Your task to perform on an android device: open app "Google Translate" Image 0: 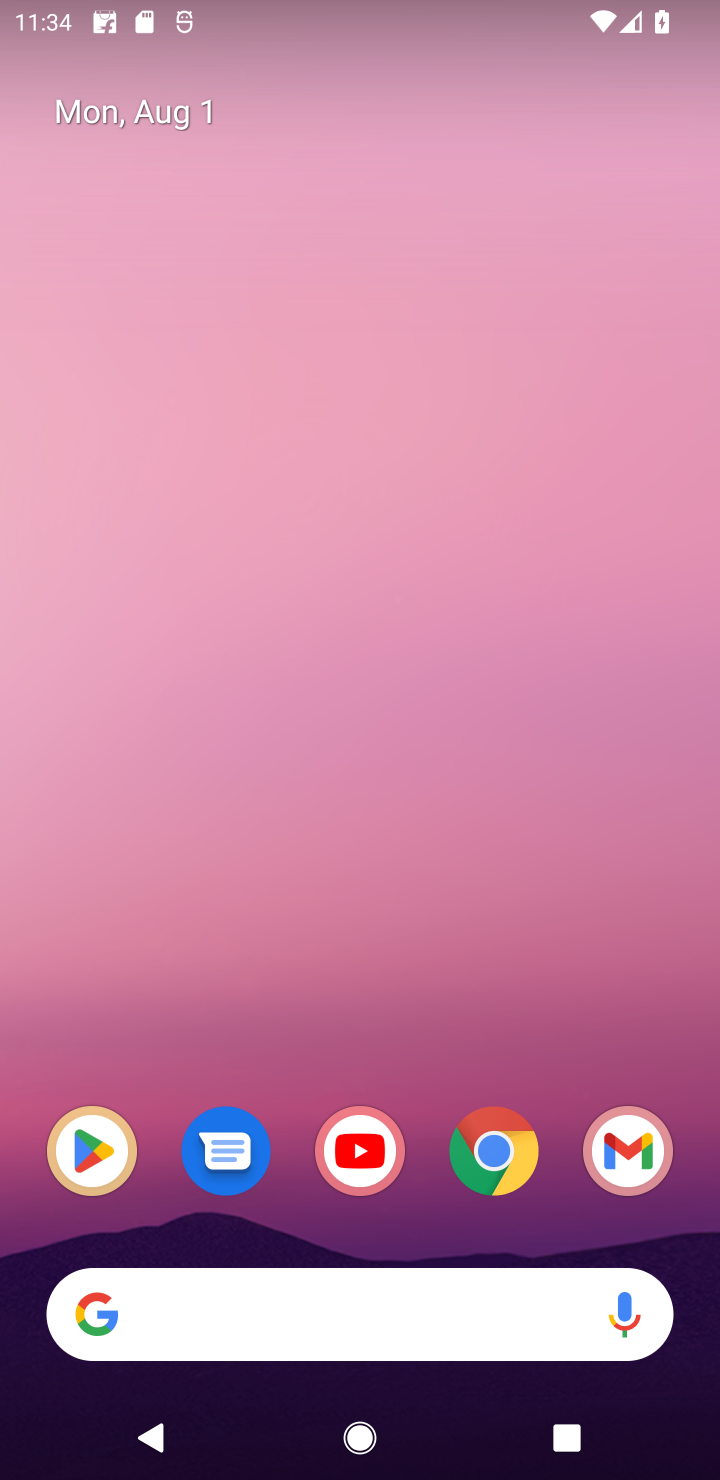
Step 0: click (115, 1132)
Your task to perform on an android device: open app "Google Translate" Image 1: 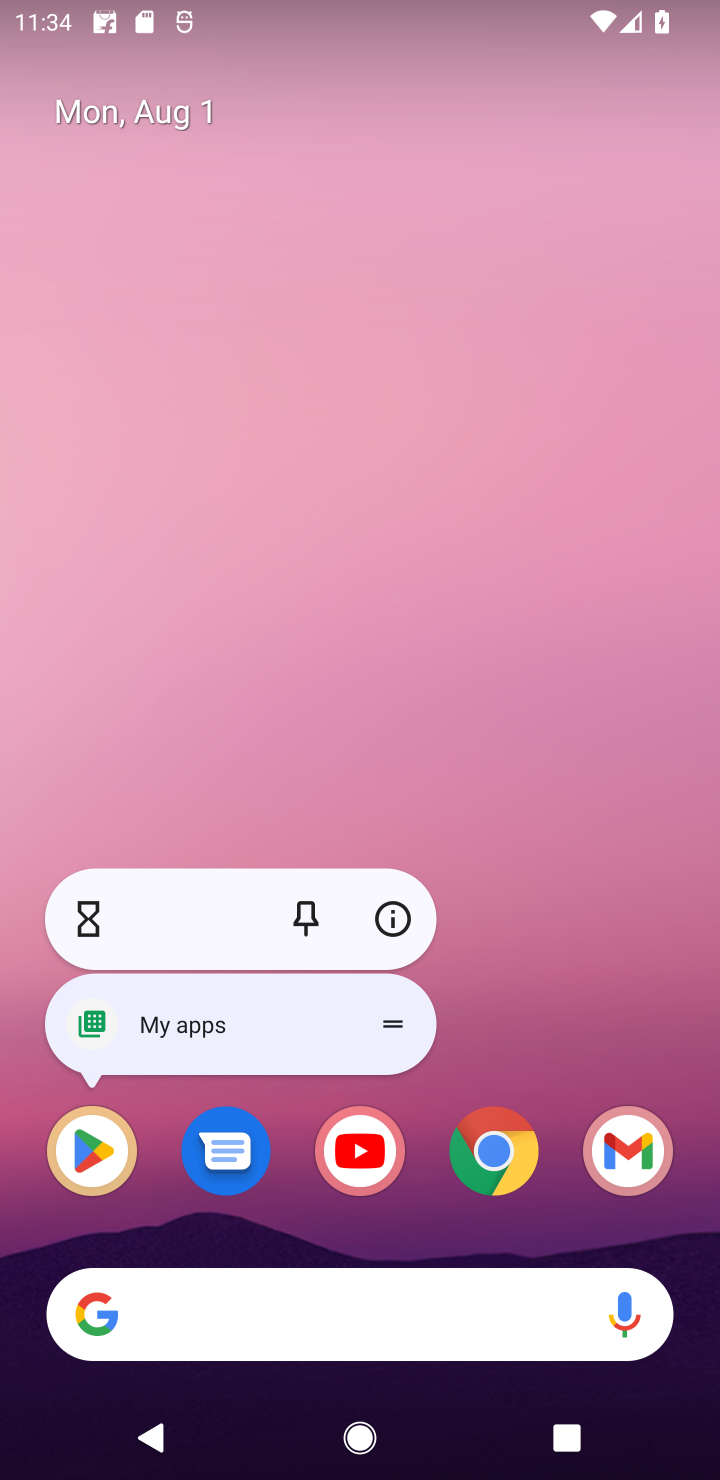
Step 1: click (90, 1143)
Your task to perform on an android device: open app "Google Translate" Image 2: 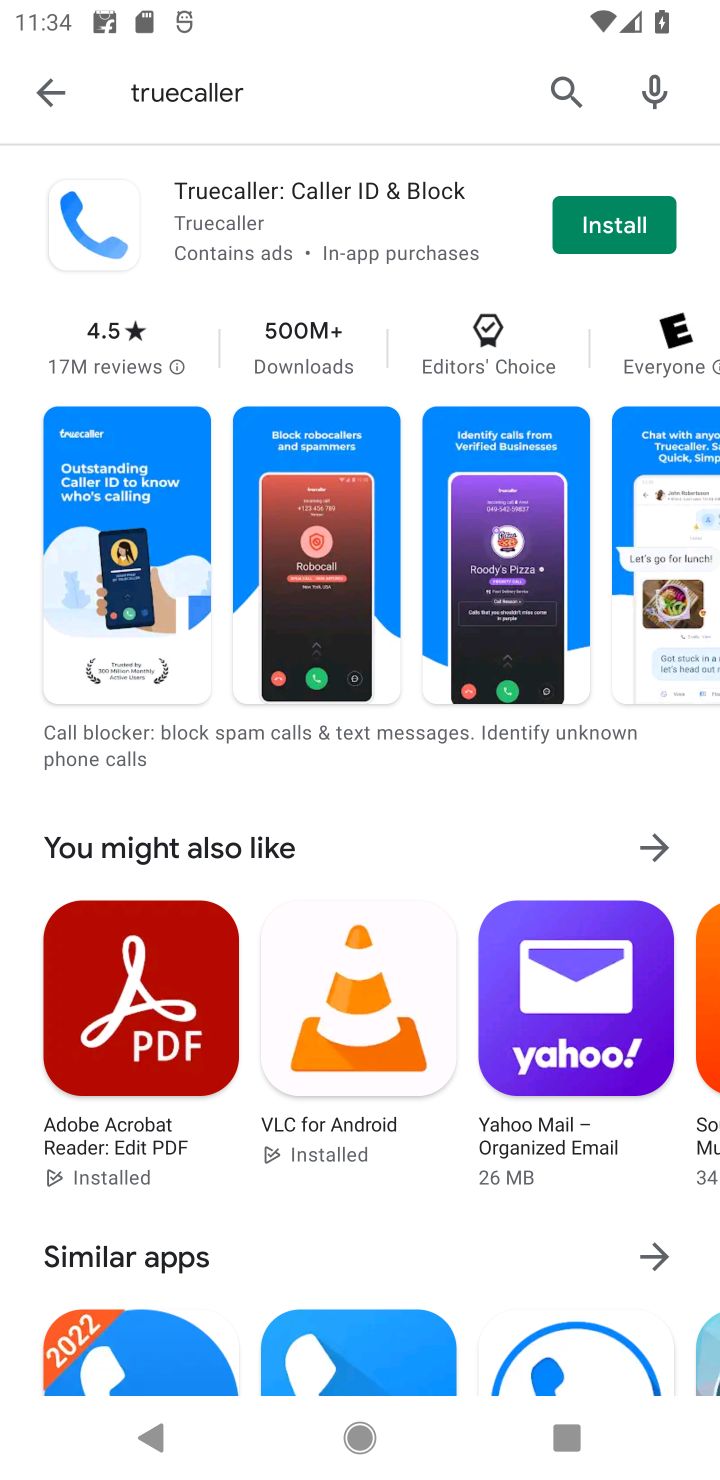
Step 2: click (553, 86)
Your task to perform on an android device: open app "Google Translate" Image 3: 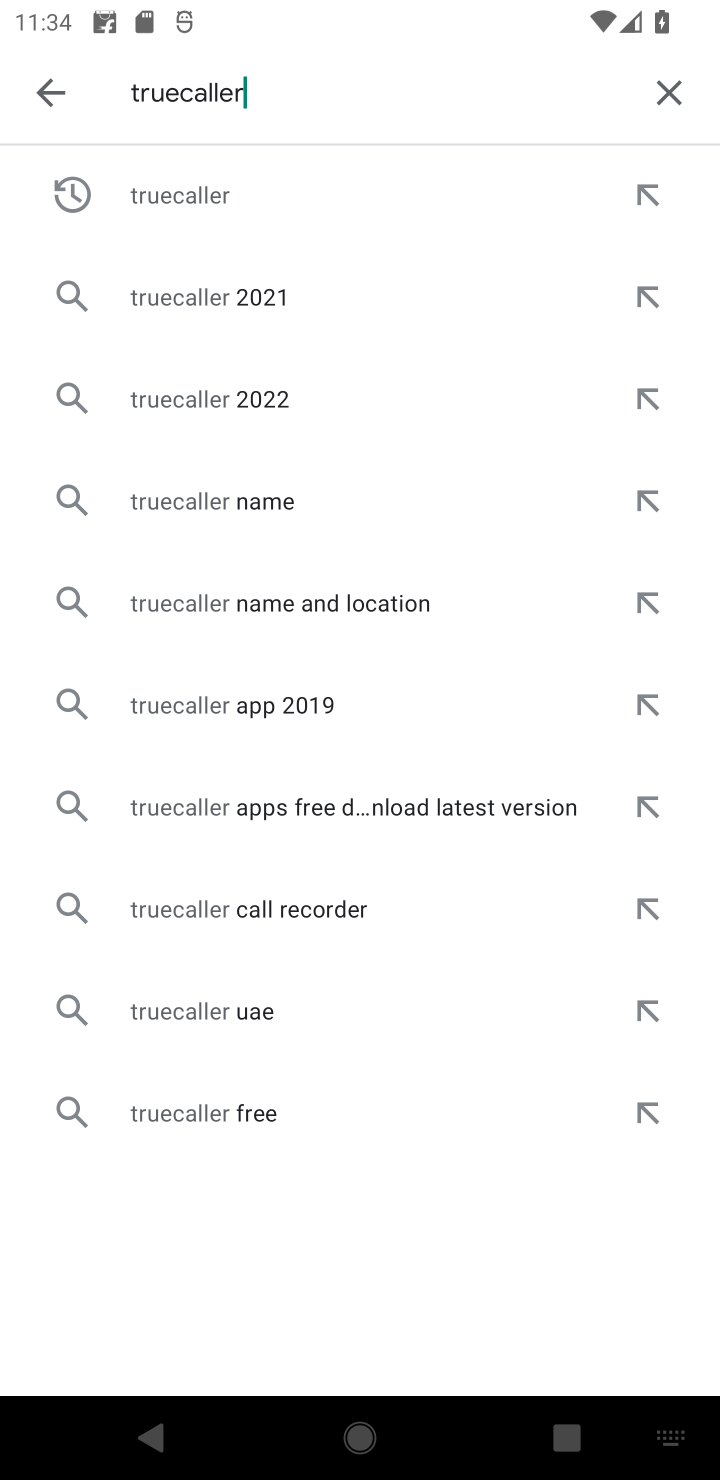
Step 3: click (684, 106)
Your task to perform on an android device: open app "Google Translate" Image 4: 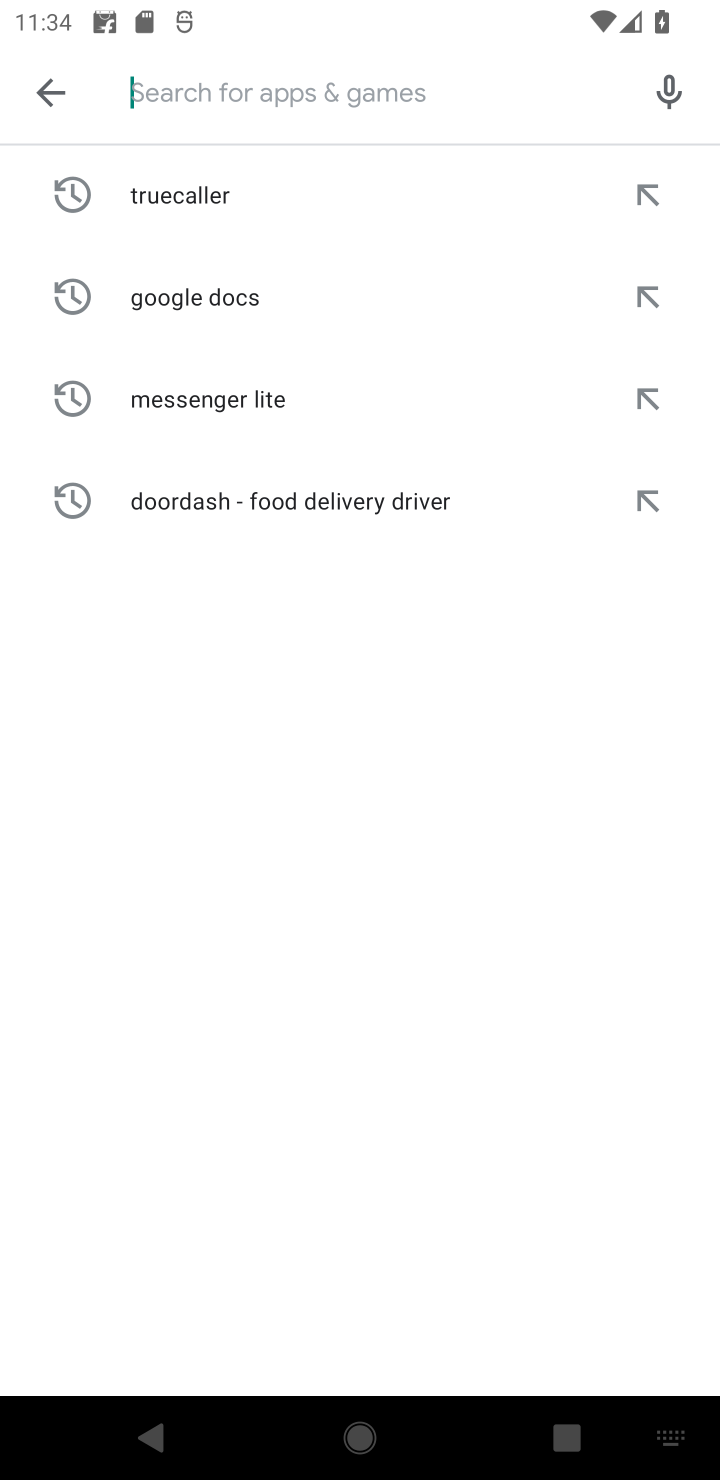
Step 4: type "Google Translate"
Your task to perform on an android device: open app "Google Translate" Image 5: 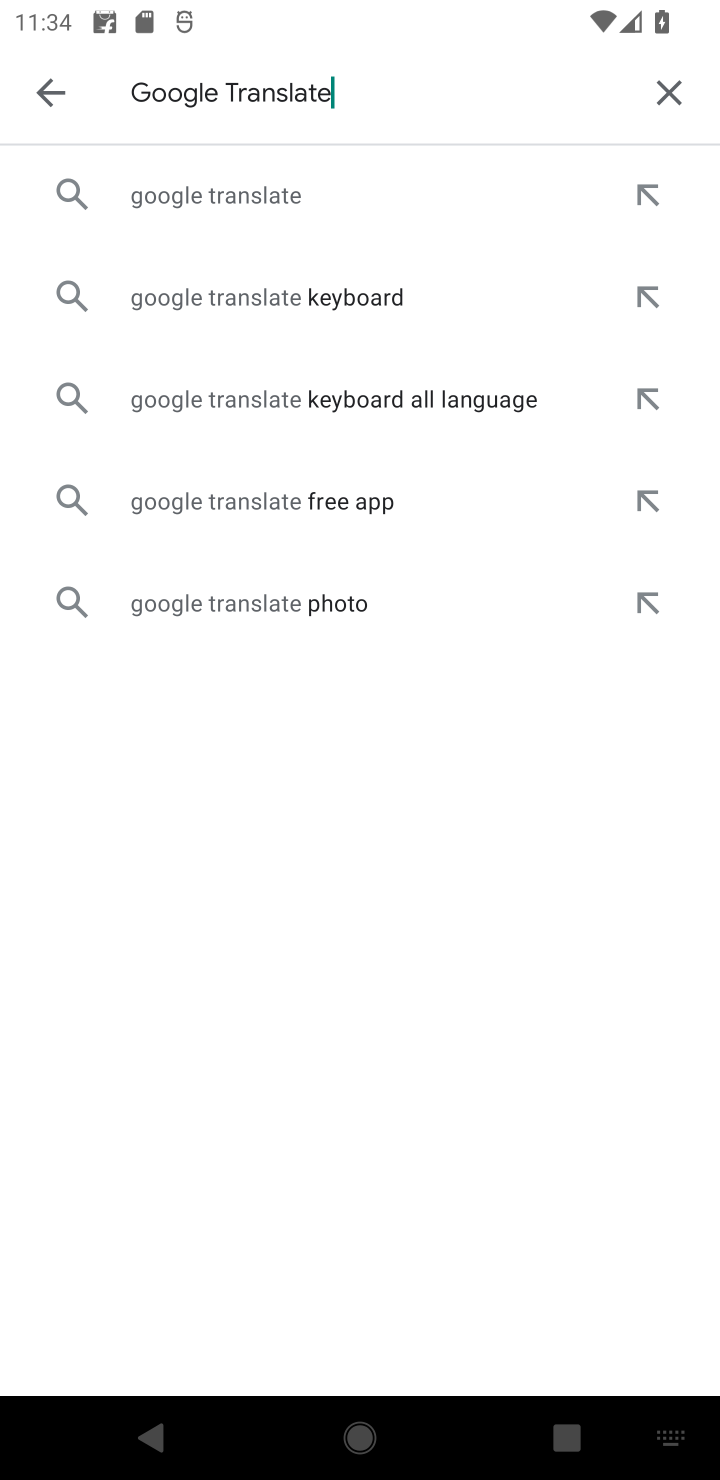
Step 5: click (278, 209)
Your task to perform on an android device: open app "Google Translate" Image 6: 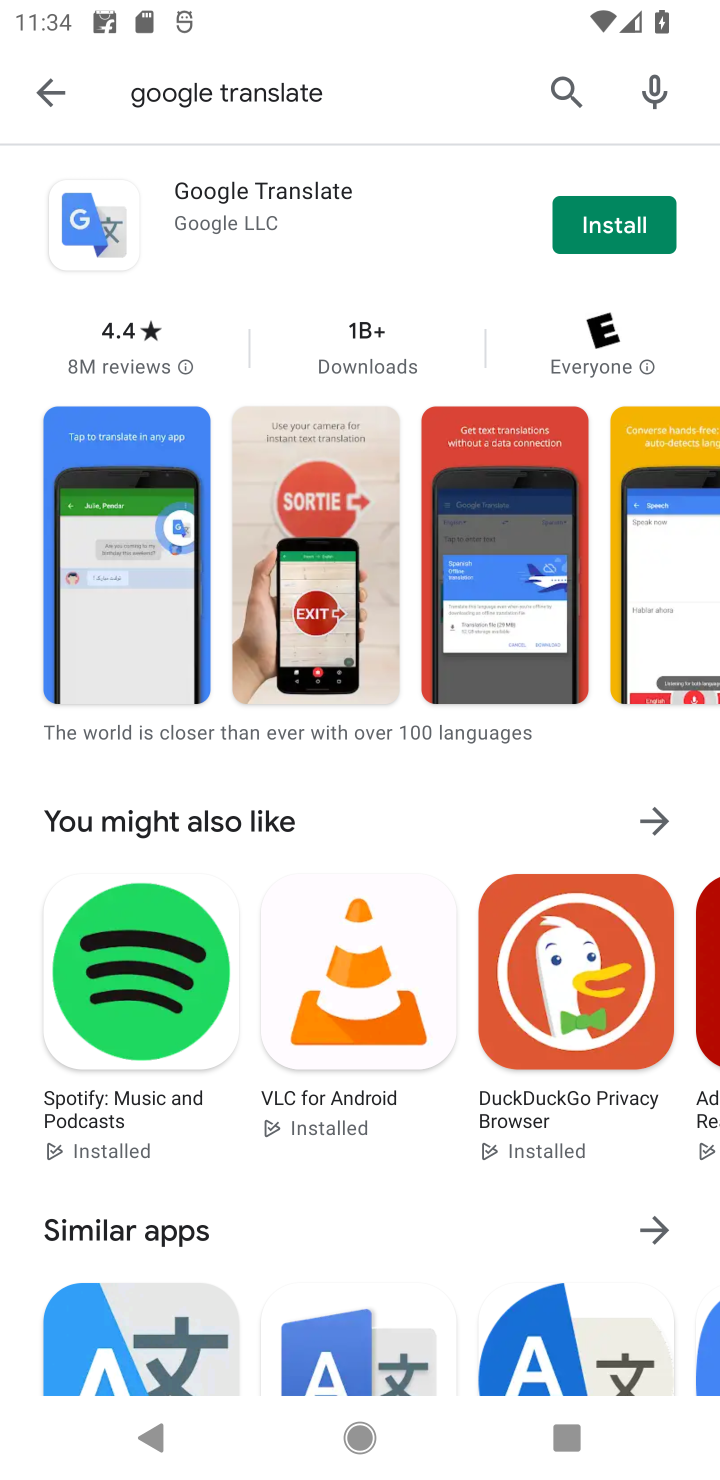
Step 6: task complete